Your task to perform on an android device: turn pop-ups on in chrome Image 0: 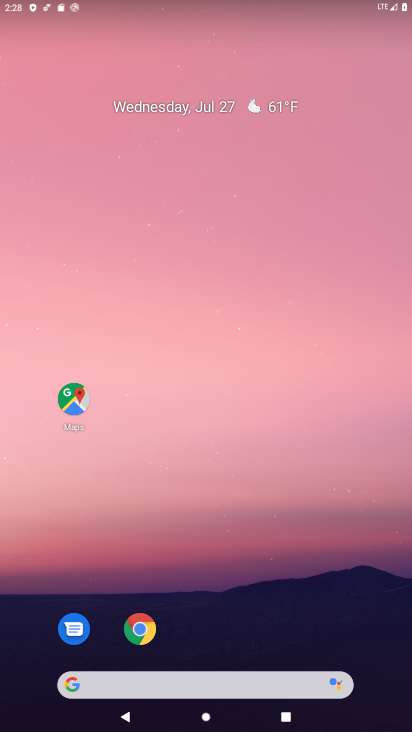
Step 0: click (138, 630)
Your task to perform on an android device: turn pop-ups on in chrome Image 1: 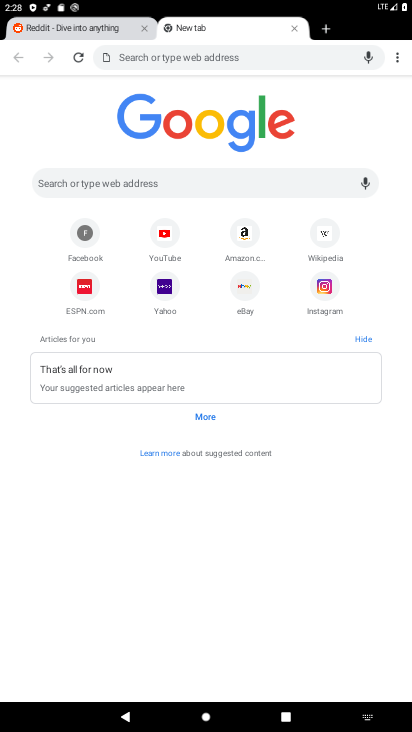
Step 1: click (396, 56)
Your task to perform on an android device: turn pop-ups on in chrome Image 2: 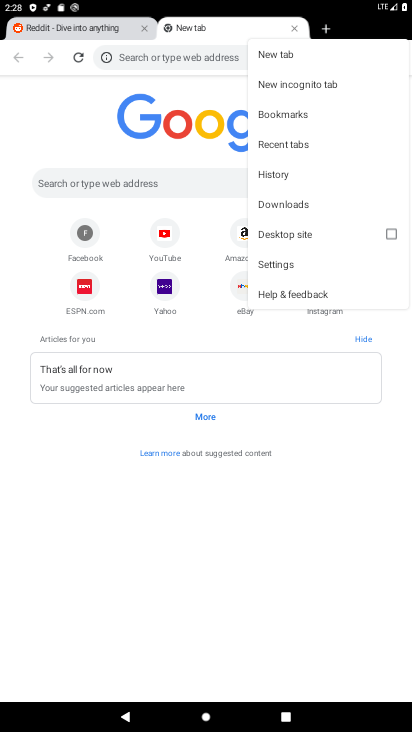
Step 2: click (286, 266)
Your task to perform on an android device: turn pop-ups on in chrome Image 3: 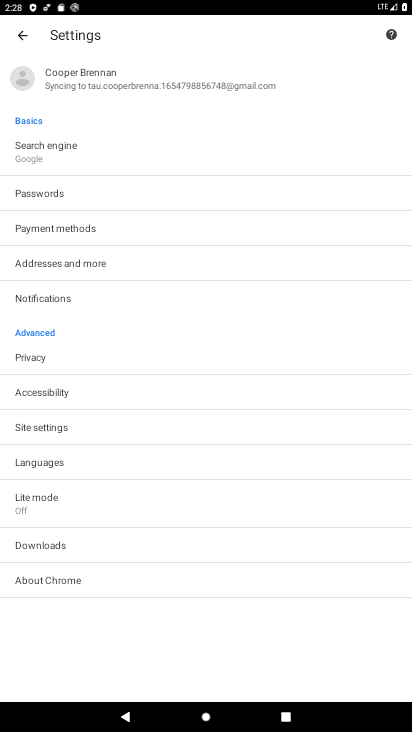
Step 3: click (39, 426)
Your task to perform on an android device: turn pop-ups on in chrome Image 4: 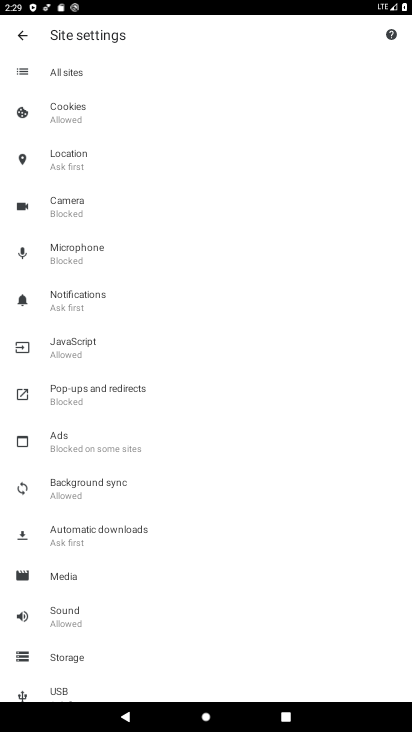
Step 4: click (93, 390)
Your task to perform on an android device: turn pop-ups on in chrome Image 5: 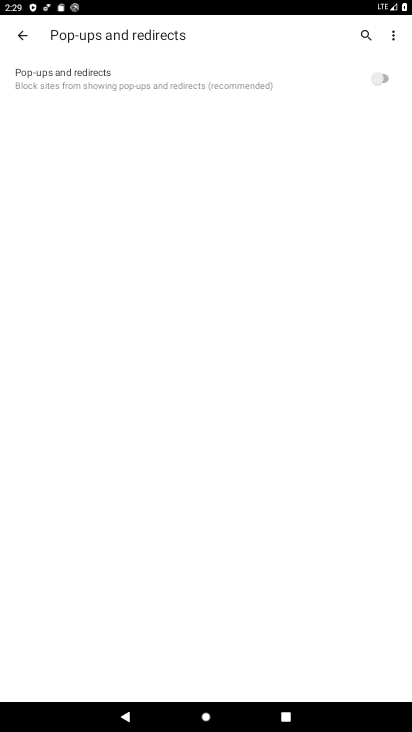
Step 5: click (379, 78)
Your task to perform on an android device: turn pop-ups on in chrome Image 6: 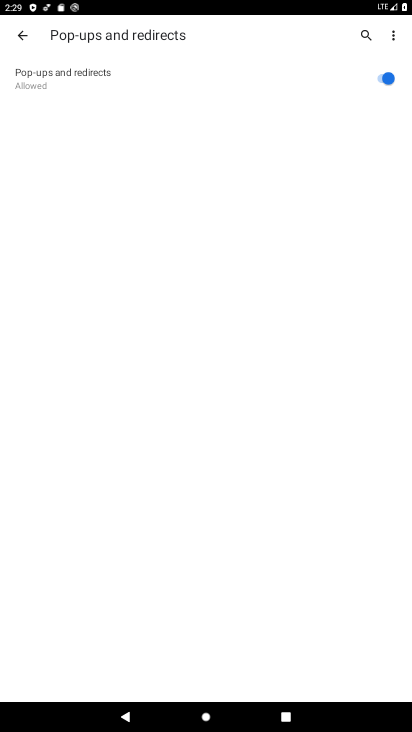
Step 6: task complete